Your task to perform on an android device: snooze an email in the gmail app Image 0: 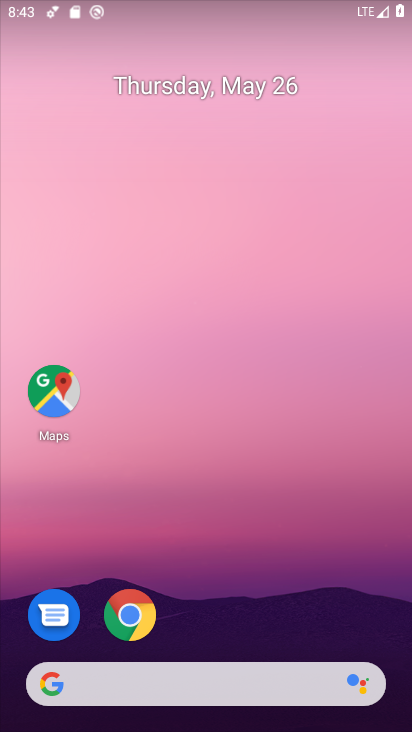
Step 0: drag from (273, 603) to (311, 299)
Your task to perform on an android device: snooze an email in the gmail app Image 1: 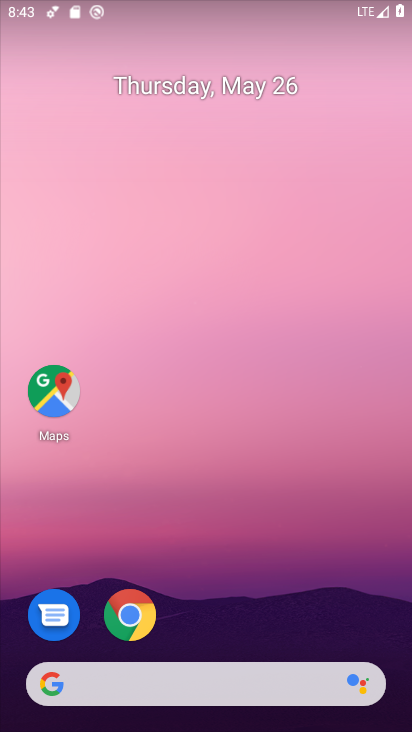
Step 1: drag from (205, 557) to (226, 283)
Your task to perform on an android device: snooze an email in the gmail app Image 2: 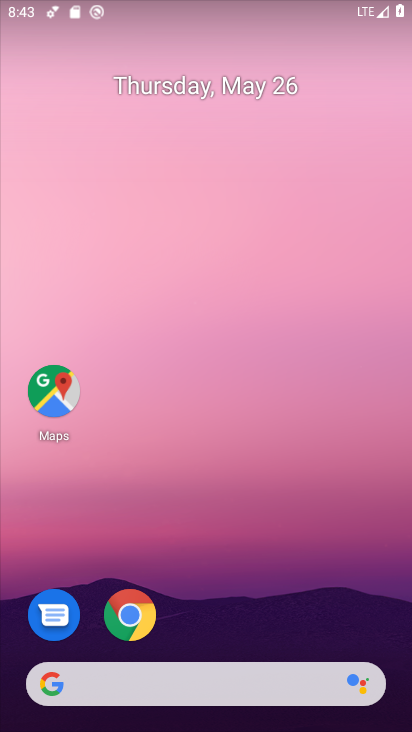
Step 2: drag from (241, 568) to (254, 201)
Your task to perform on an android device: snooze an email in the gmail app Image 3: 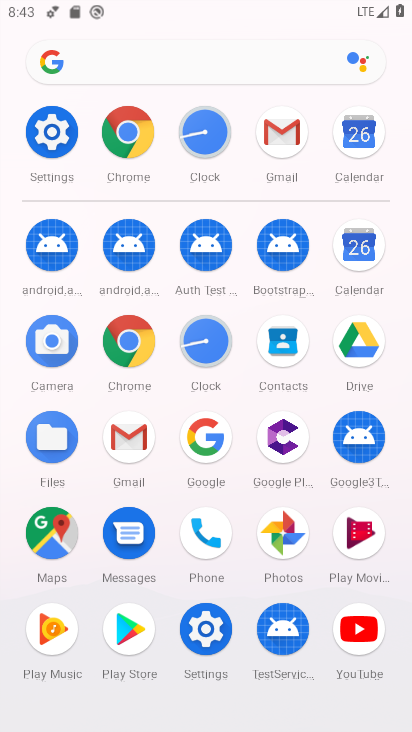
Step 3: click (130, 122)
Your task to perform on an android device: snooze an email in the gmail app Image 4: 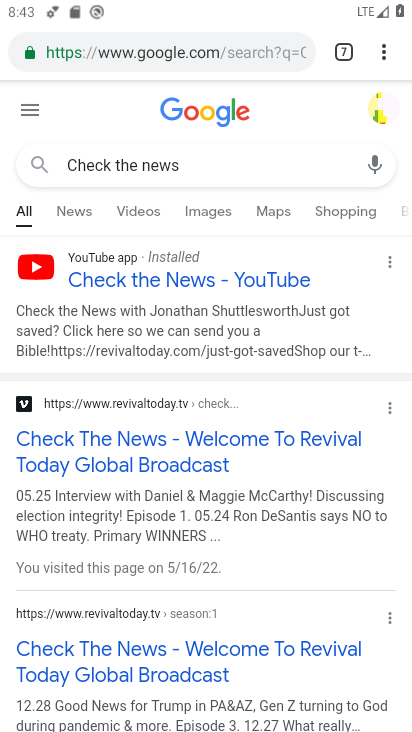
Step 4: press home button
Your task to perform on an android device: snooze an email in the gmail app Image 5: 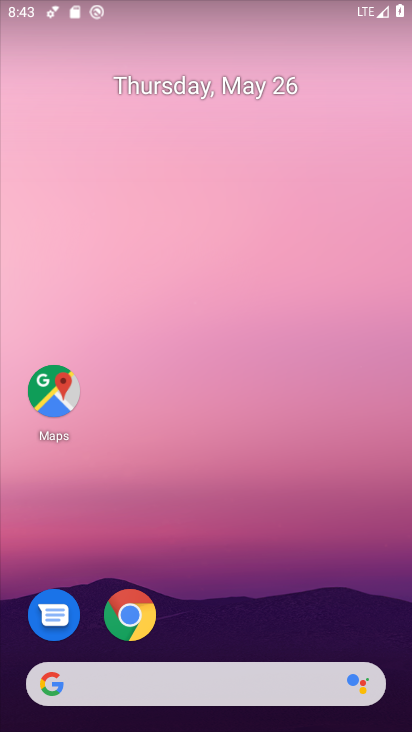
Step 5: drag from (186, 605) to (226, 283)
Your task to perform on an android device: snooze an email in the gmail app Image 6: 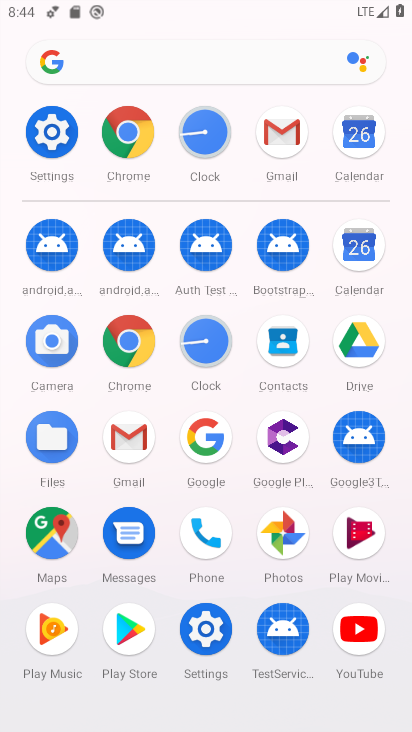
Step 6: click (139, 433)
Your task to perform on an android device: snooze an email in the gmail app Image 7: 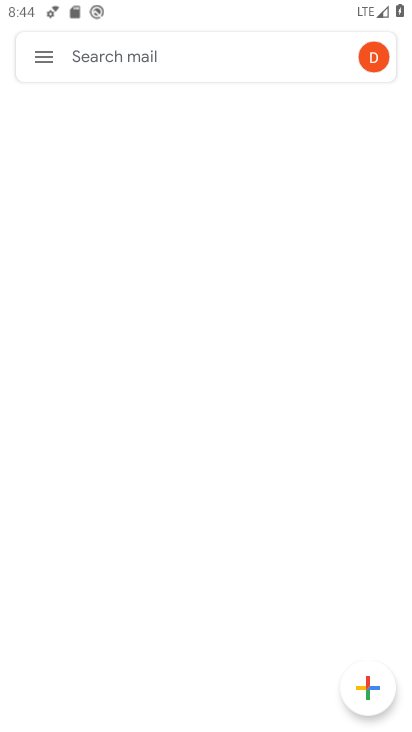
Step 7: click (40, 51)
Your task to perform on an android device: snooze an email in the gmail app Image 8: 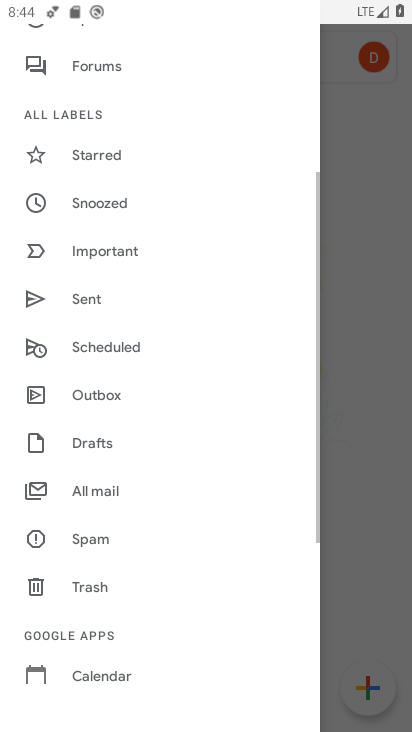
Step 8: click (99, 209)
Your task to perform on an android device: snooze an email in the gmail app Image 9: 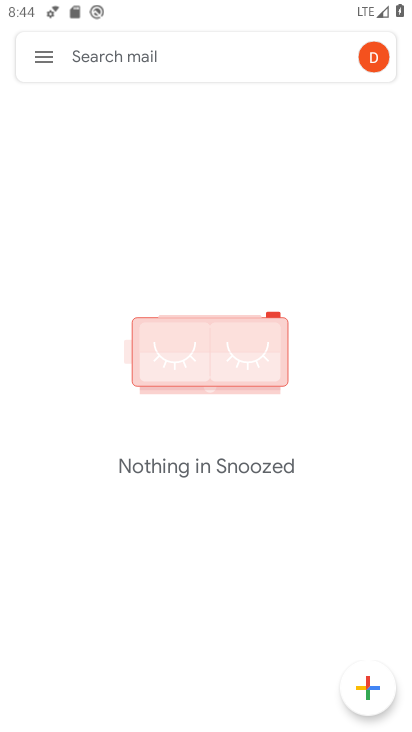
Step 9: task complete